Your task to perform on an android device: Do I have any events tomorrow? Image 0: 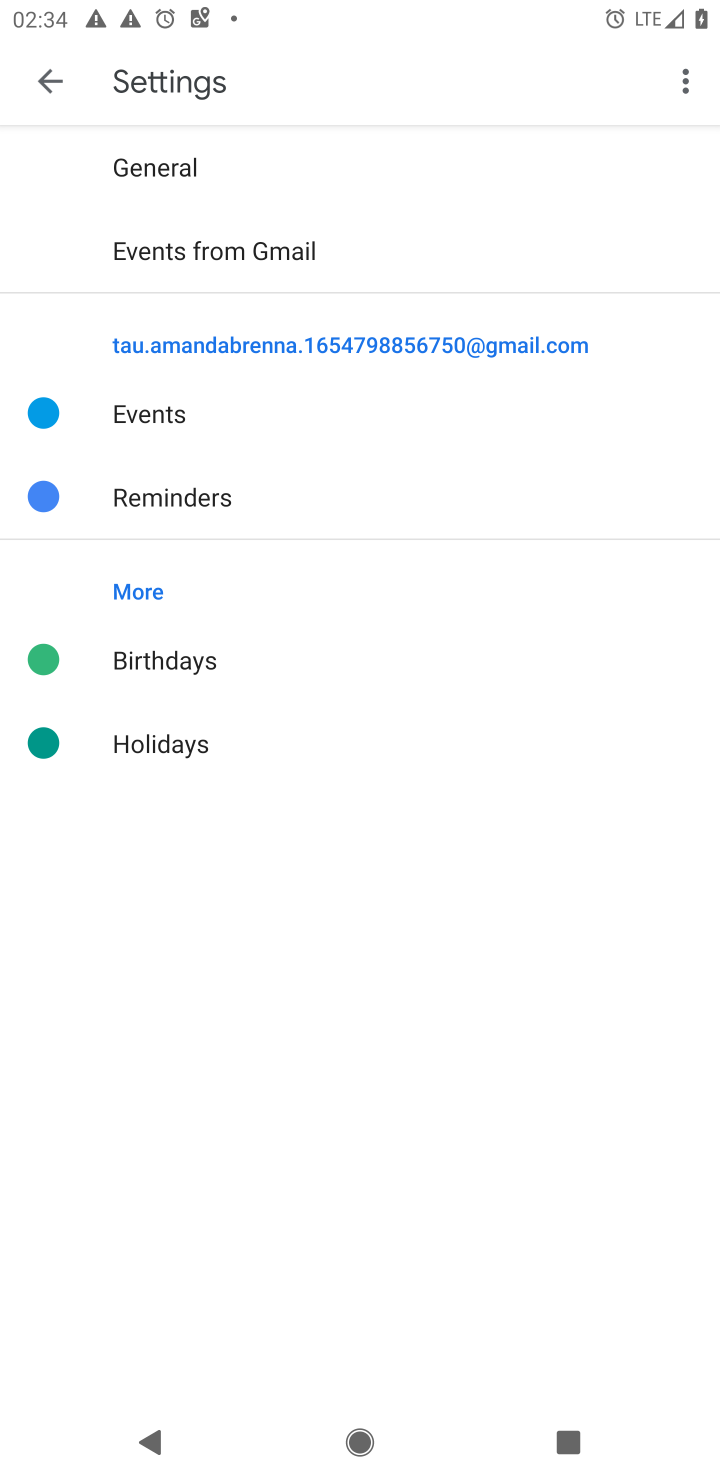
Step 0: press home button
Your task to perform on an android device: Do I have any events tomorrow? Image 1: 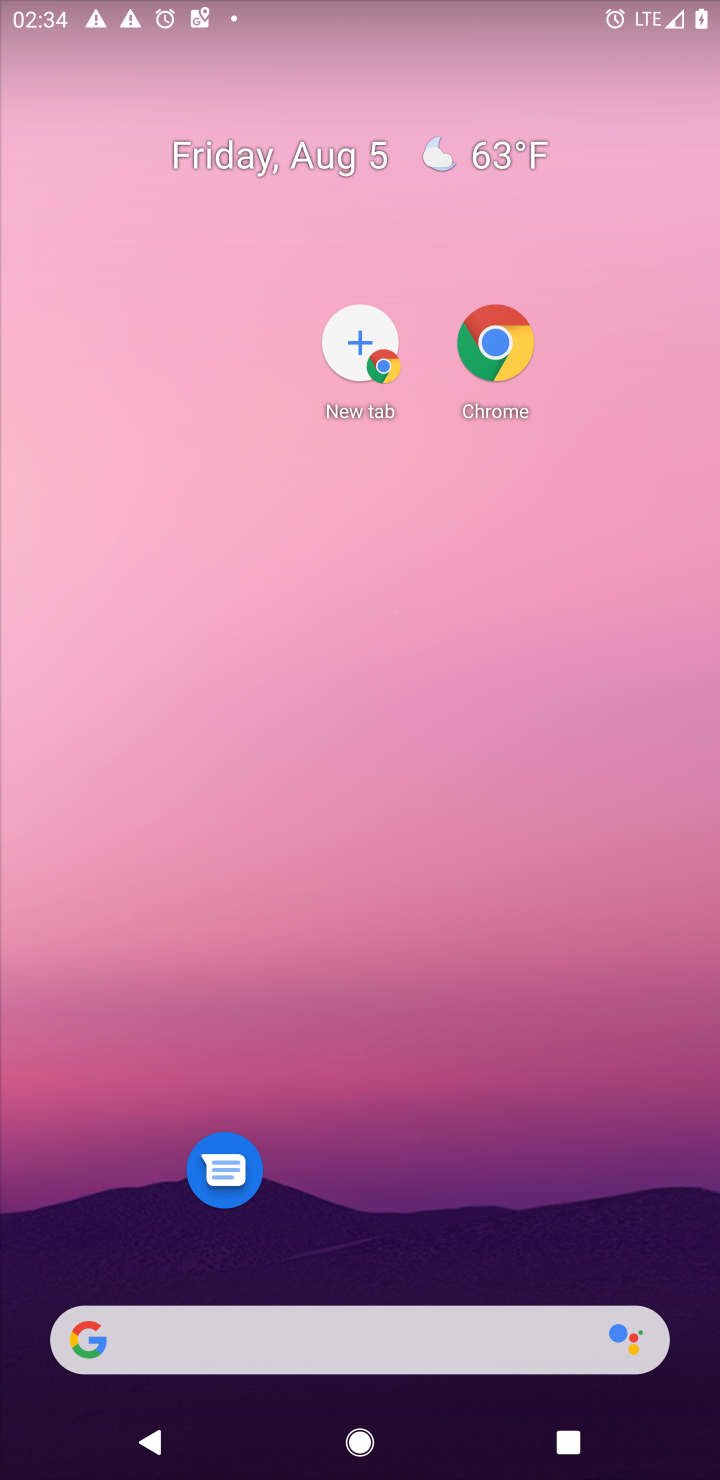
Step 1: drag from (378, 901) to (282, 110)
Your task to perform on an android device: Do I have any events tomorrow? Image 2: 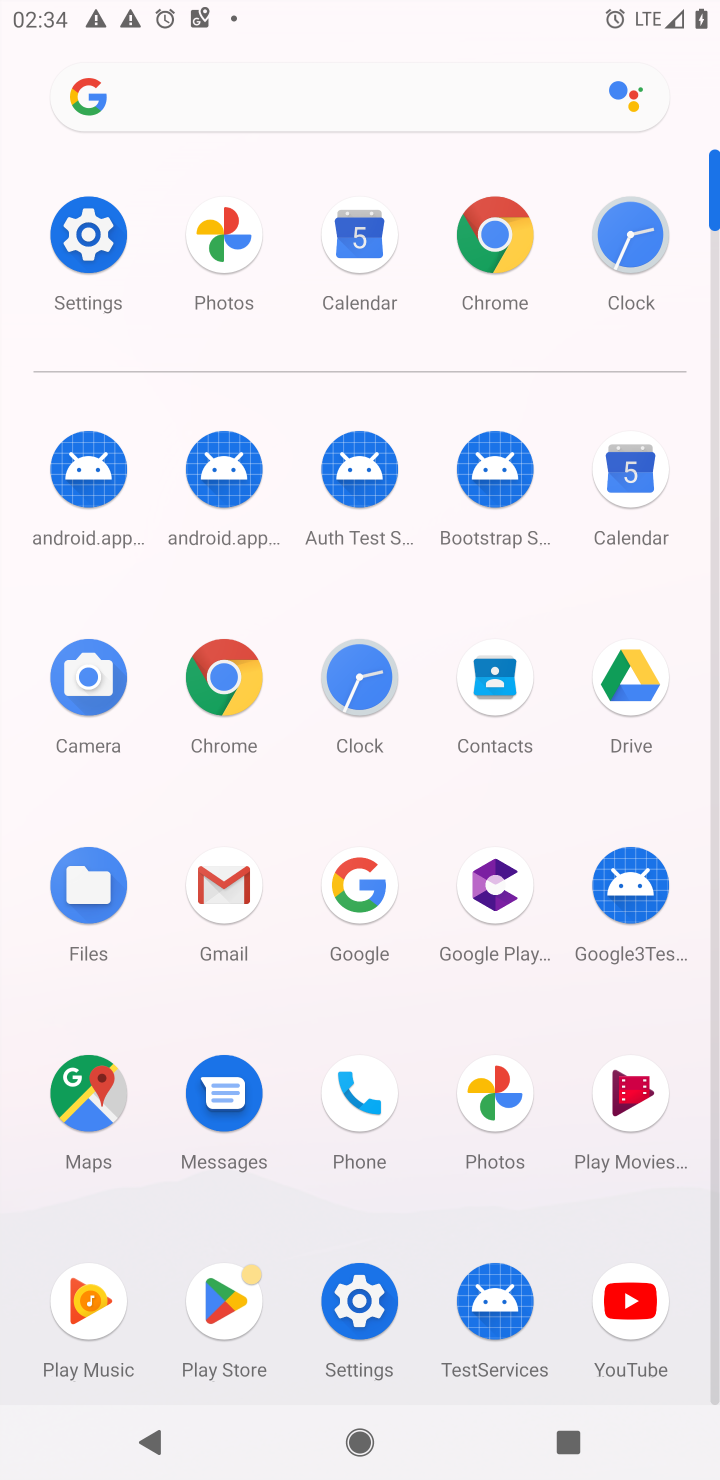
Step 2: click (653, 454)
Your task to perform on an android device: Do I have any events tomorrow? Image 3: 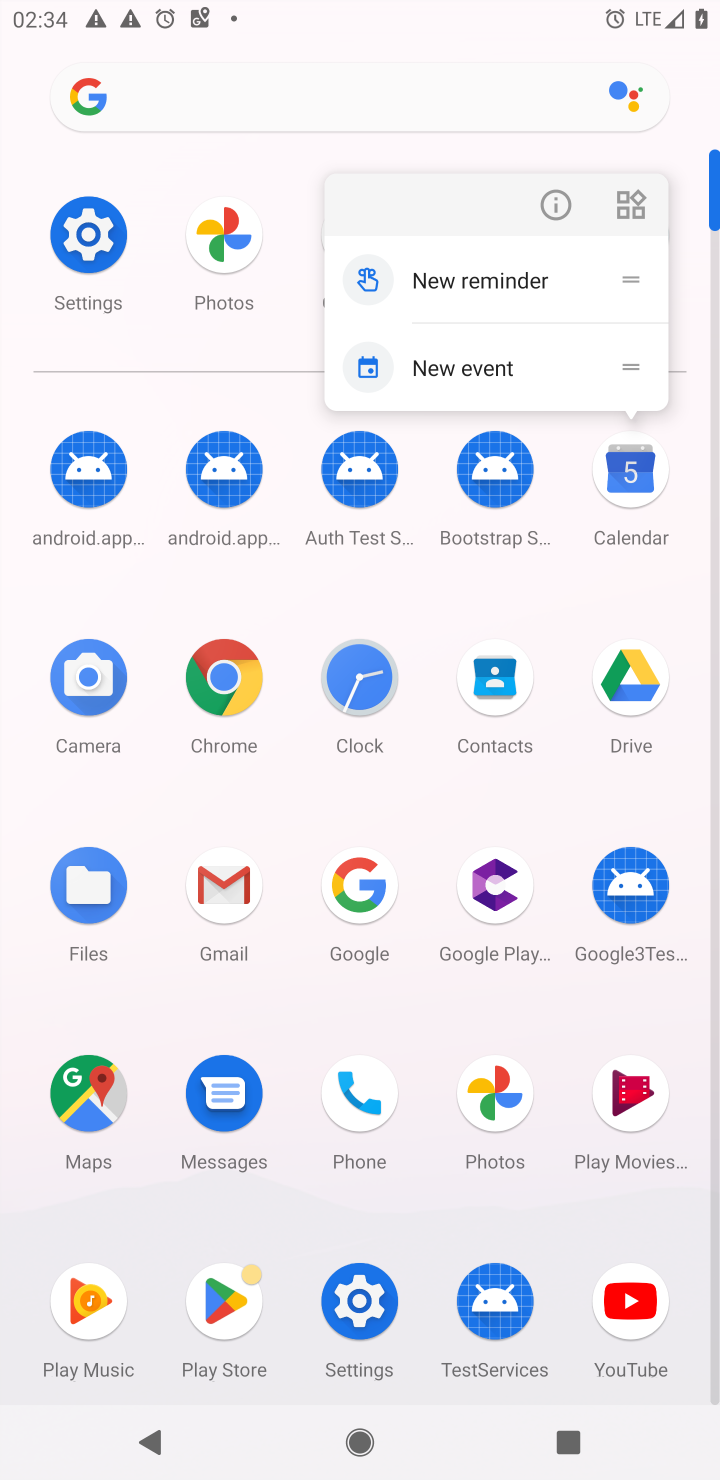
Step 3: click (645, 507)
Your task to perform on an android device: Do I have any events tomorrow? Image 4: 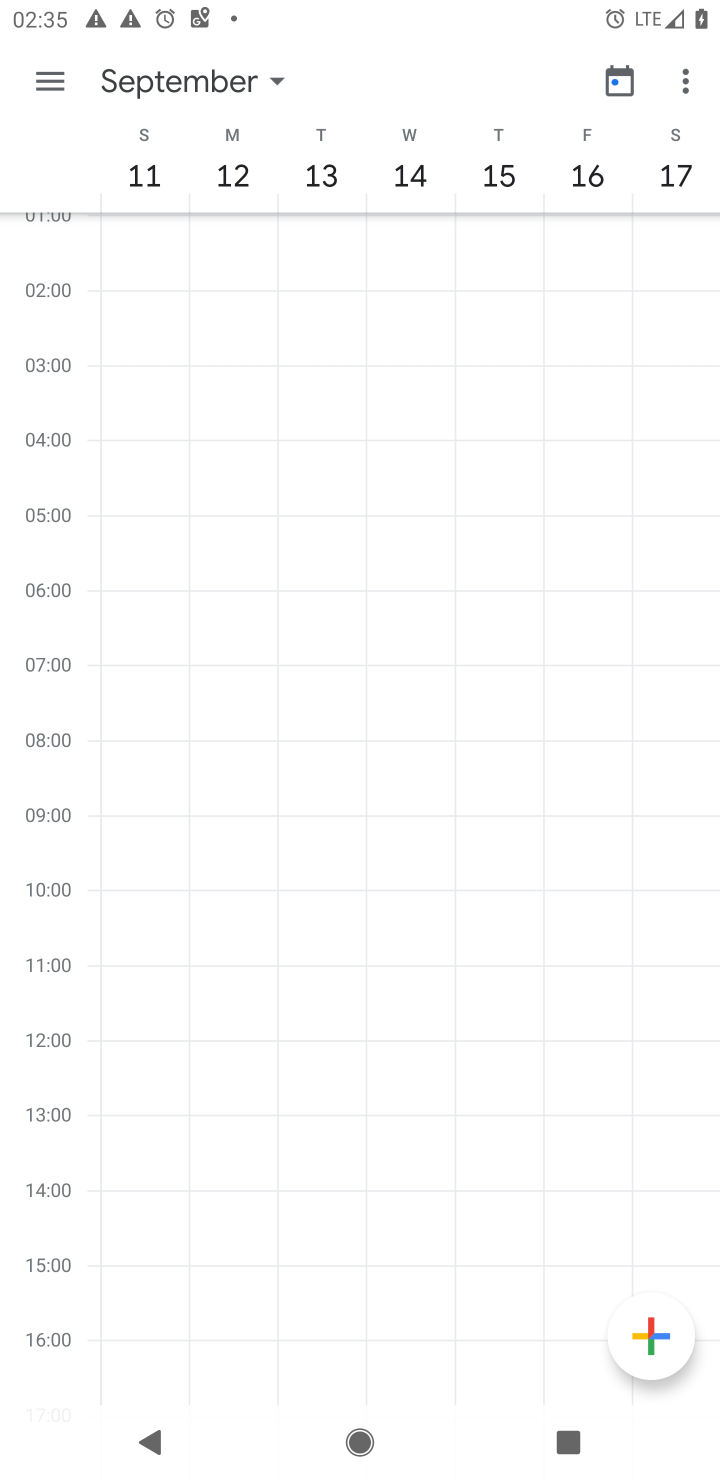
Step 4: click (253, 92)
Your task to perform on an android device: Do I have any events tomorrow? Image 5: 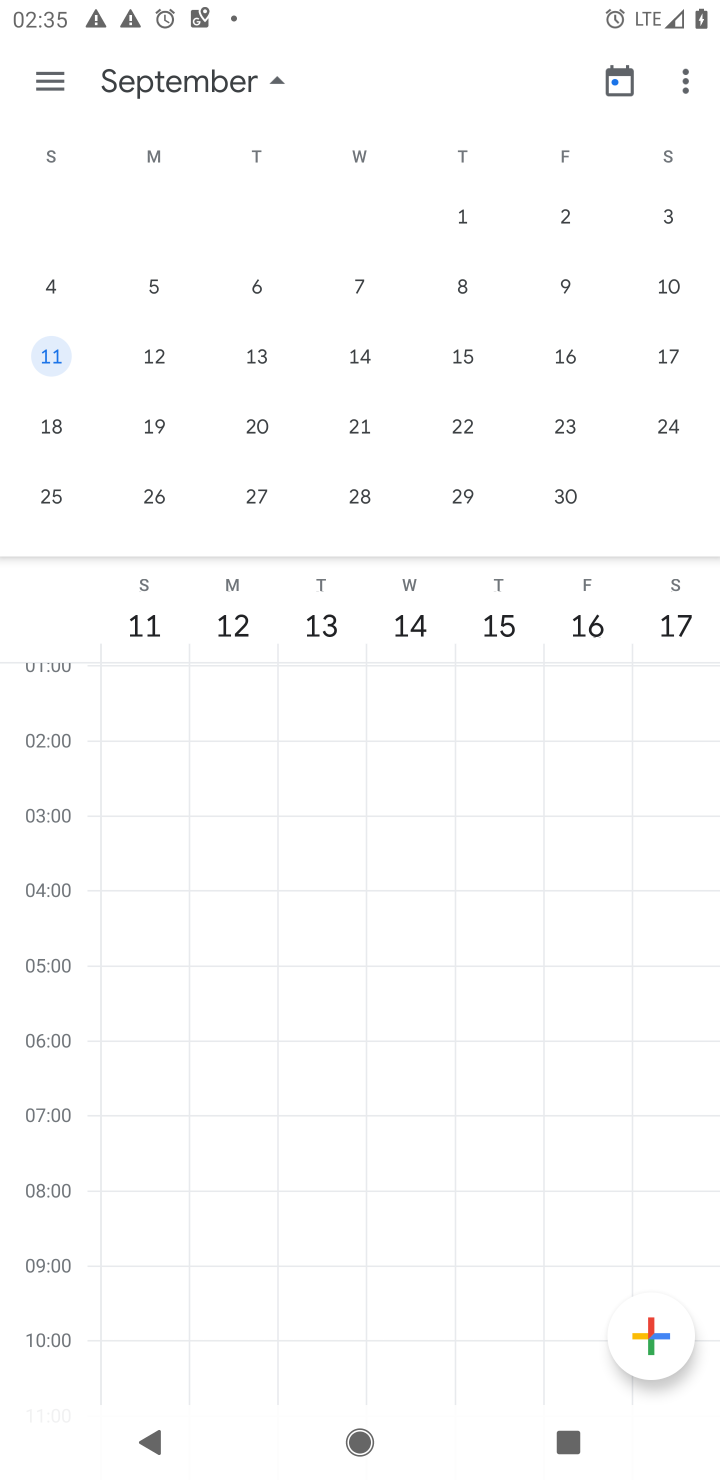
Step 5: drag from (46, 442) to (595, 212)
Your task to perform on an android device: Do I have any events tomorrow? Image 6: 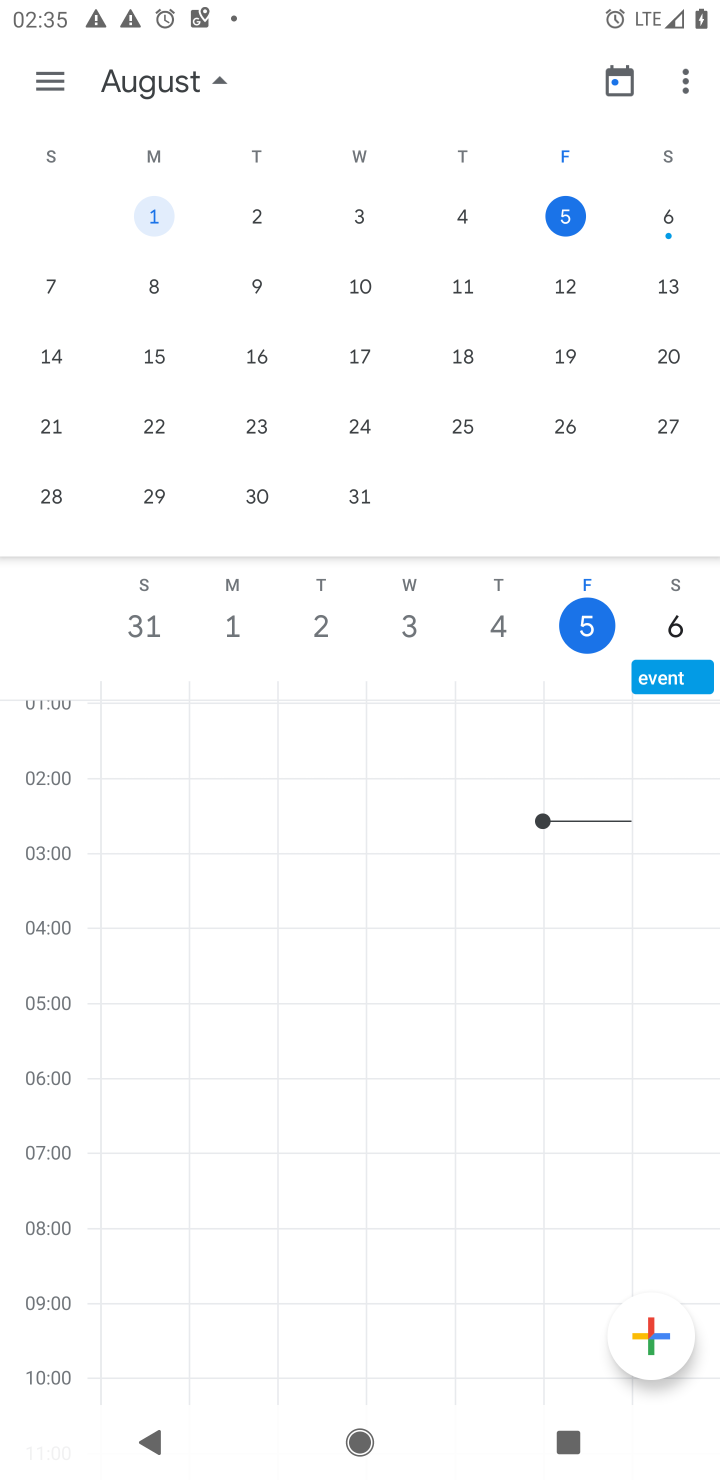
Step 6: click (678, 214)
Your task to perform on an android device: Do I have any events tomorrow? Image 7: 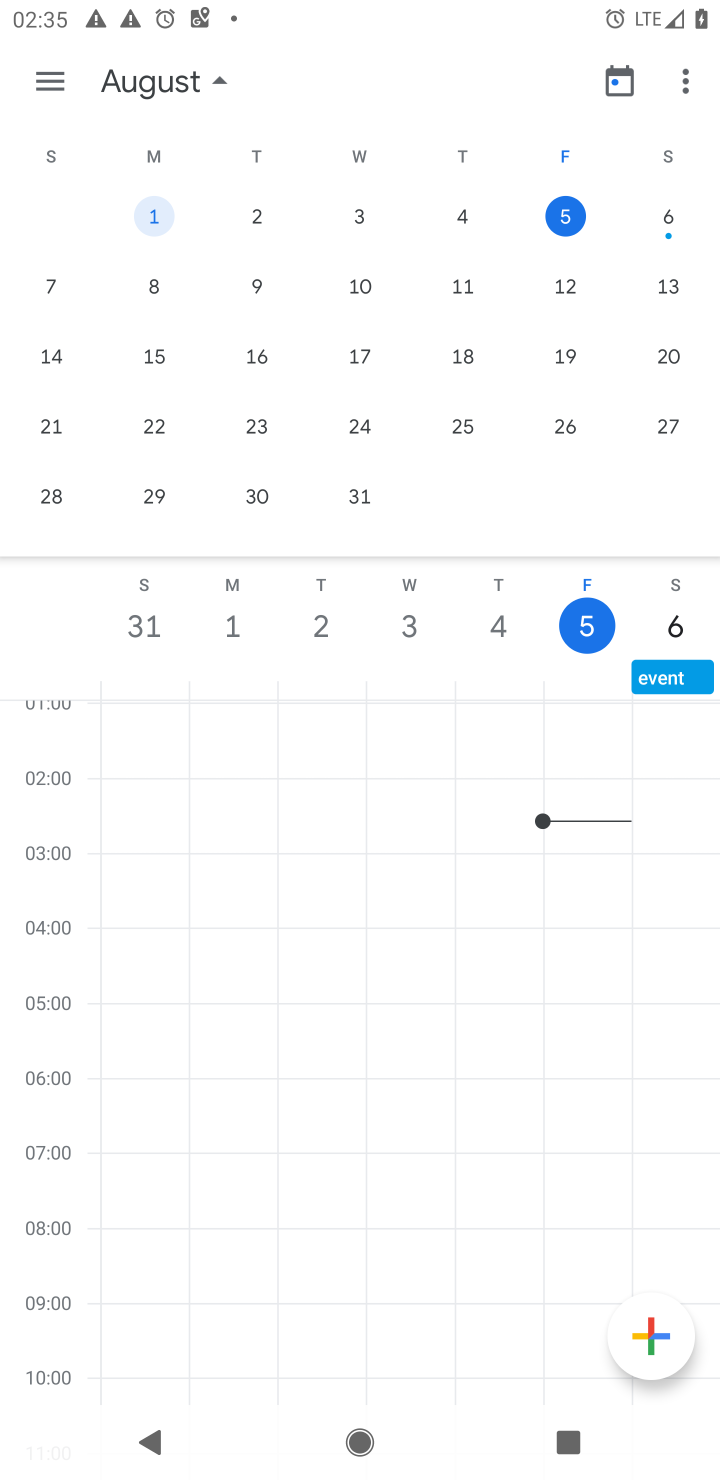
Step 7: click (656, 218)
Your task to perform on an android device: Do I have any events tomorrow? Image 8: 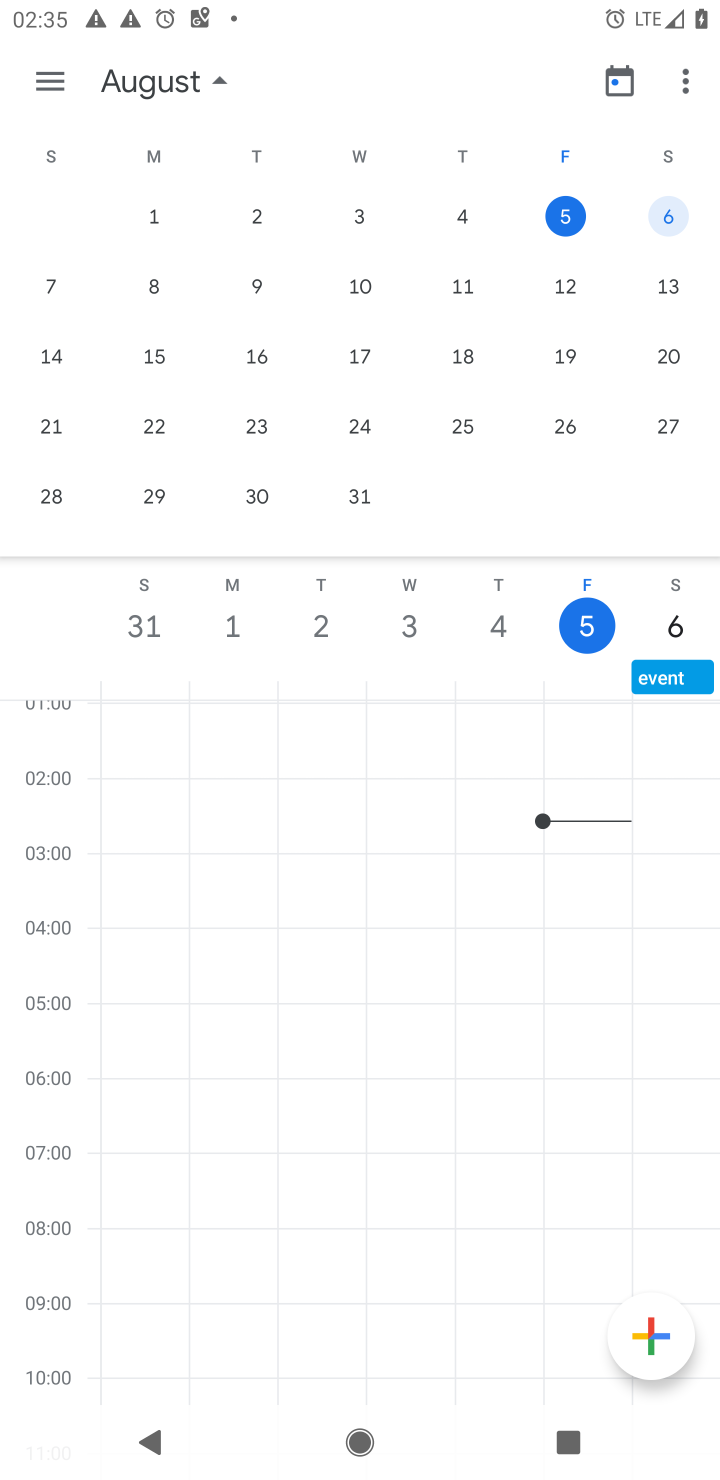
Step 8: click (215, 85)
Your task to perform on an android device: Do I have any events tomorrow? Image 9: 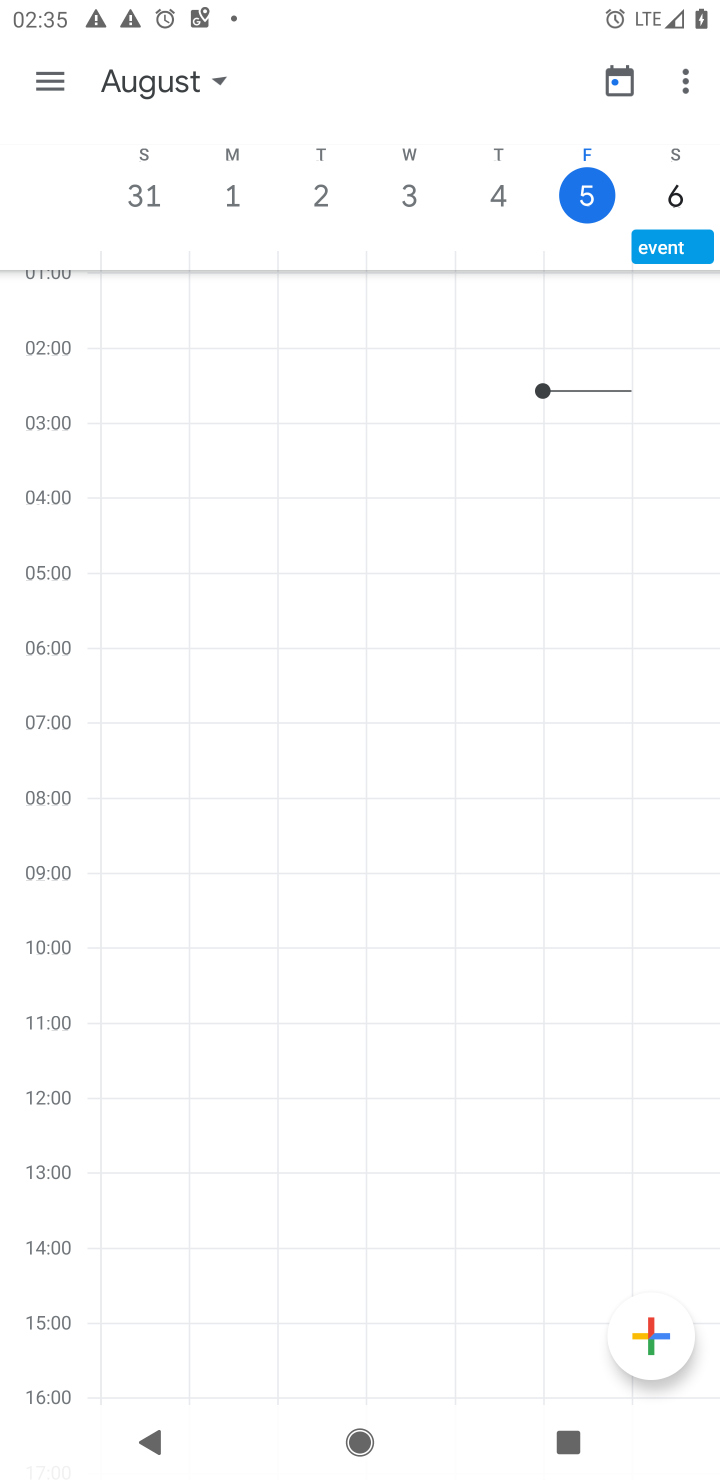
Step 9: click (61, 79)
Your task to perform on an android device: Do I have any events tomorrow? Image 10: 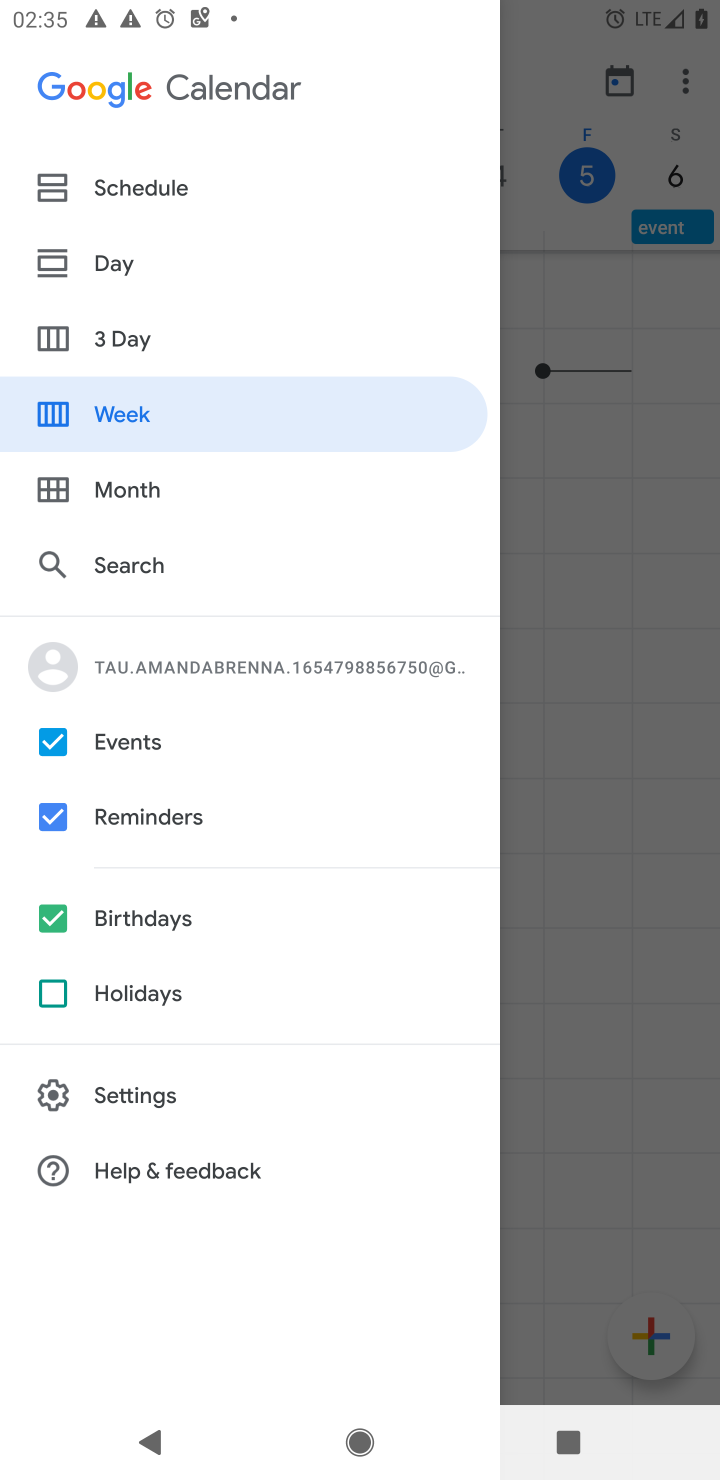
Step 10: click (147, 255)
Your task to perform on an android device: Do I have any events tomorrow? Image 11: 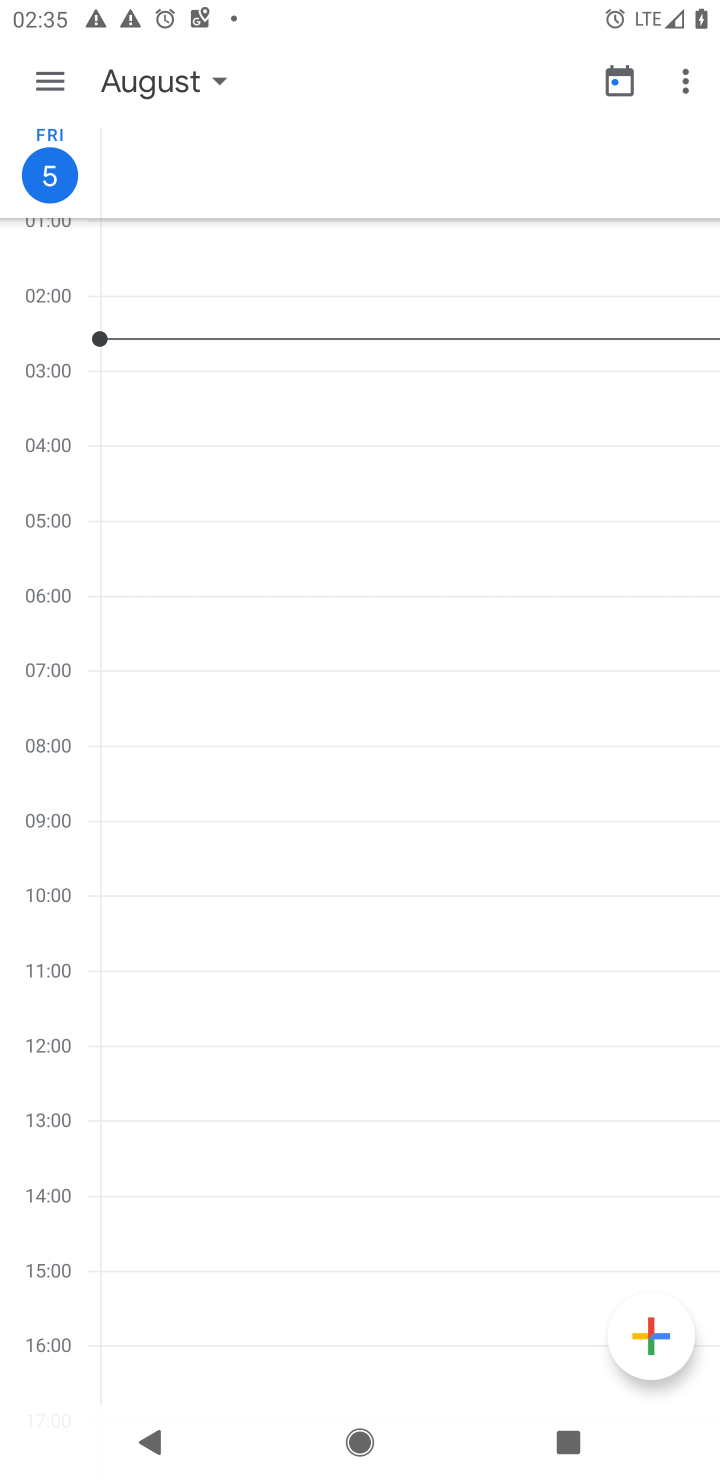
Step 11: task complete